Your task to perform on an android device: find snoozed emails in the gmail app Image 0: 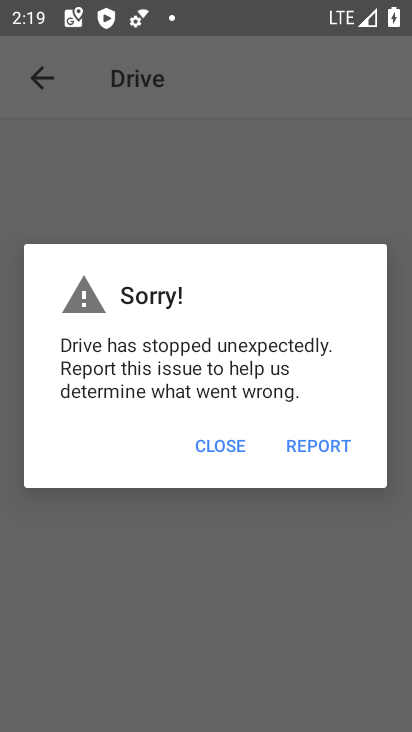
Step 0: click (214, 444)
Your task to perform on an android device: find snoozed emails in the gmail app Image 1: 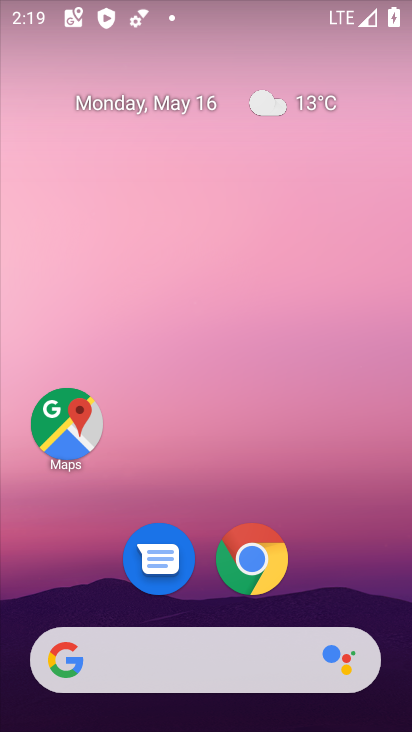
Step 1: drag from (188, 600) to (195, 82)
Your task to perform on an android device: find snoozed emails in the gmail app Image 2: 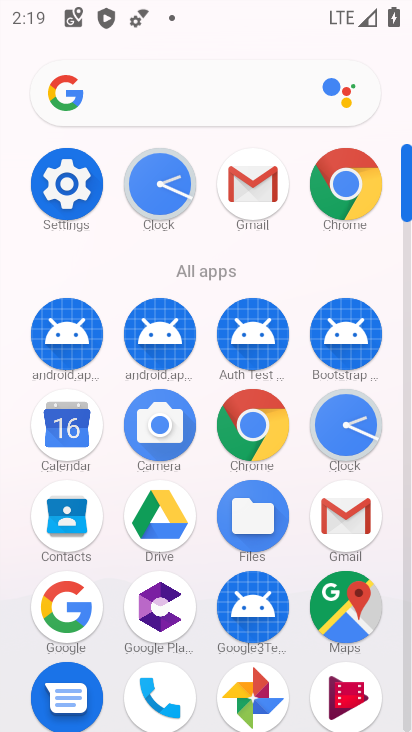
Step 2: click (260, 183)
Your task to perform on an android device: find snoozed emails in the gmail app Image 3: 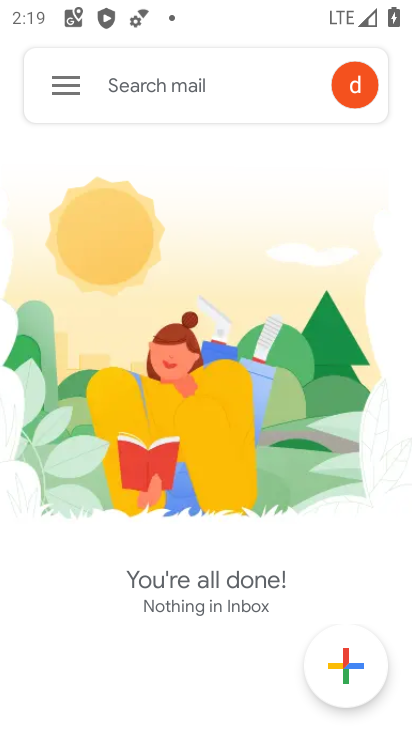
Step 3: click (55, 87)
Your task to perform on an android device: find snoozed emails in the gmail app Image 4: 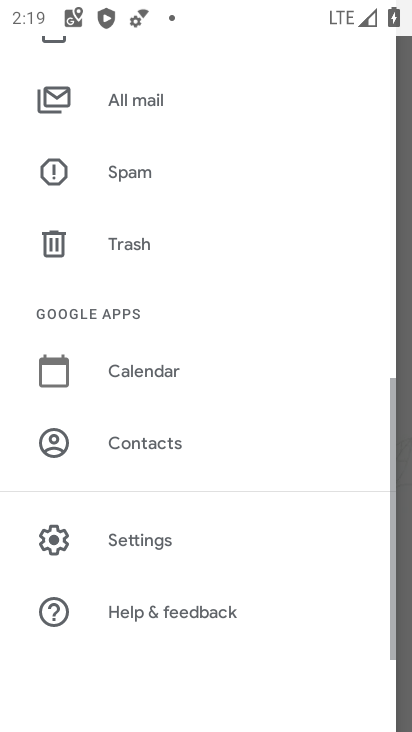
Step 4: drag from (107, 118) to (123, 712)
Your task to perform on an android device: find snoozed emails in the gmail app Image 5: 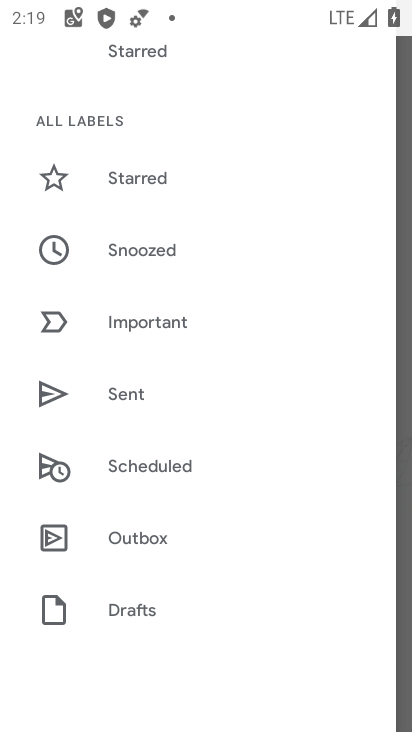
Step 5: click (129, 246)
Your task to perform on an android device: find snoozed emails in the gmail app Image 6: 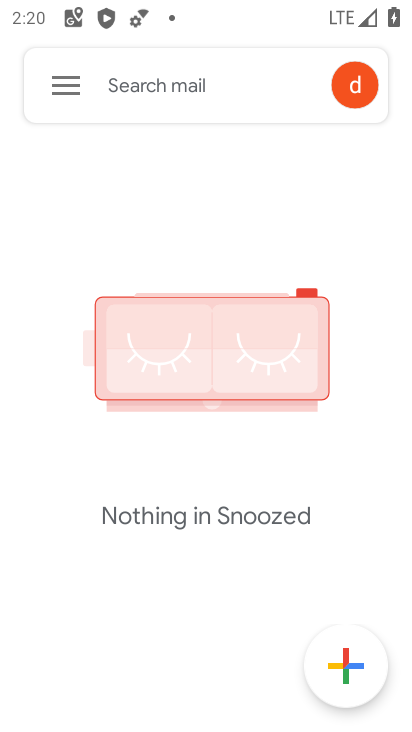
Step 6: task complete